Your task to perform on an android device: show emergency info Image 0: 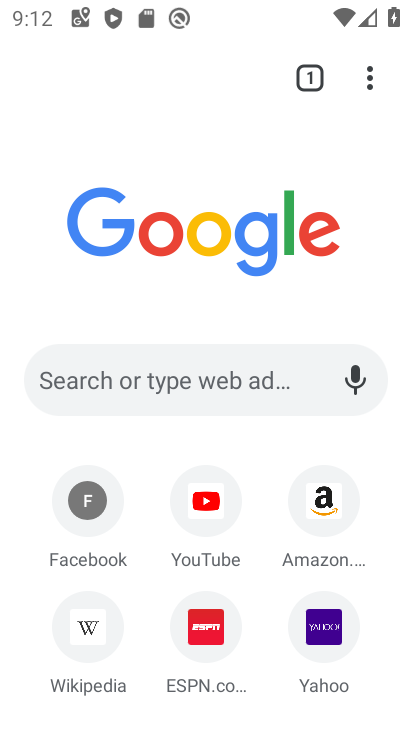
Step 0: press home button
Your task to perform on an android device: show emergency info Image 1: 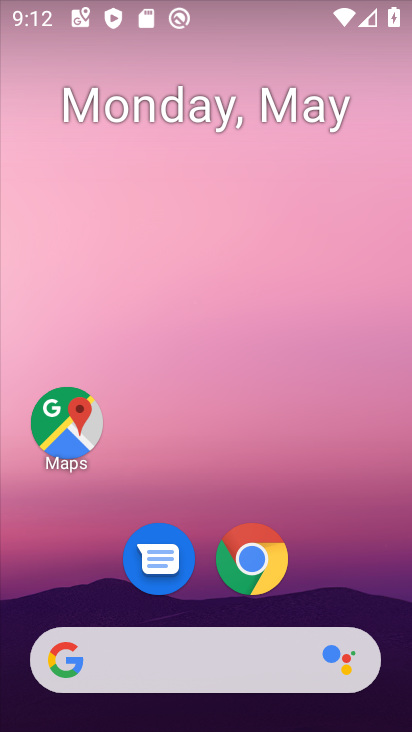
Step 1: drag from (338, 539) to (215, 99)
Your task to perform on an android device: show emergency info Image 2: 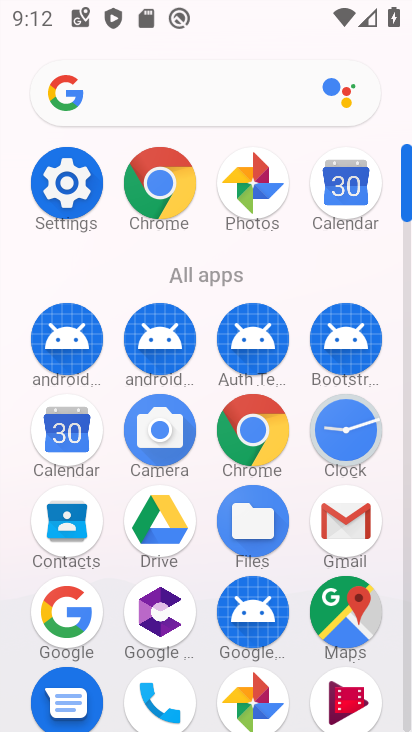
Step 2: click (65, 176)
Your task to perform on an android device: show emergency info Image 3: 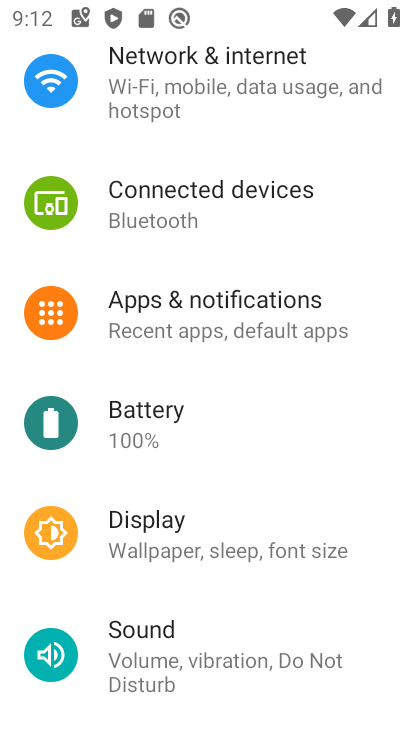
Step 3: drag from (227, 593) to (227, 101)
Your task to perform on an android device: show emergency info Image 4: 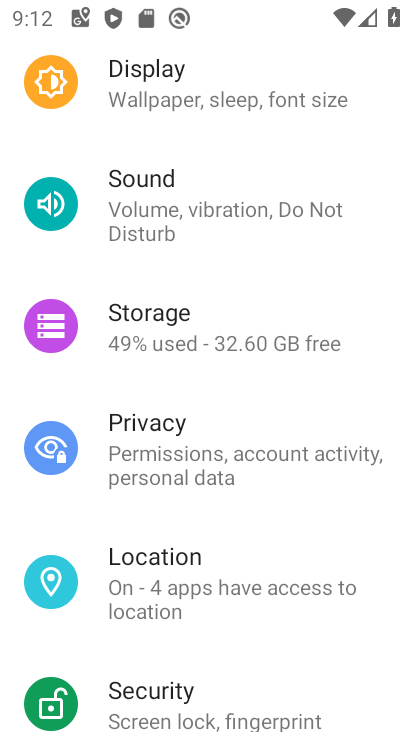
Step 4: drag from (211, 637) to (197, 217)
Your task to perform on an android device: show emergency info Image 5: 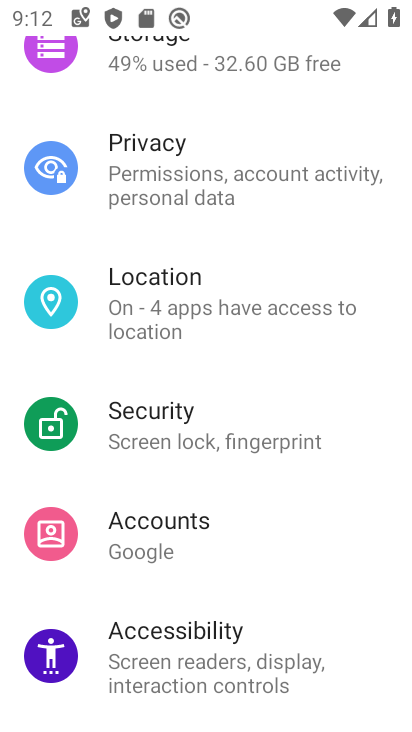
Step 5: drag from (185, 567) to (154, 168)
Your task to perform on an android device: show emergency info Image 6: 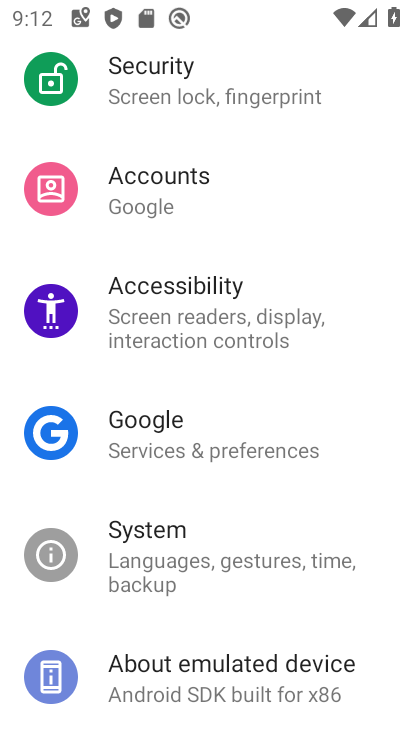
Step 6: click (207, 663)
Your task to perform on an android device: show emergency info Image 7: 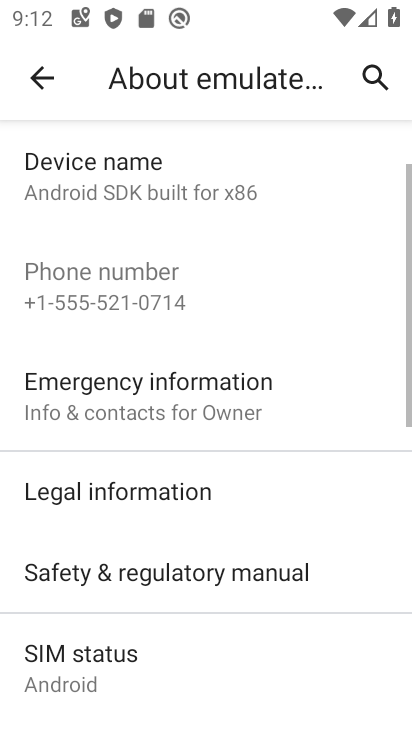
Step 7: click (181, 386)
Your task to perform on an android device: show emergency info Image 8: 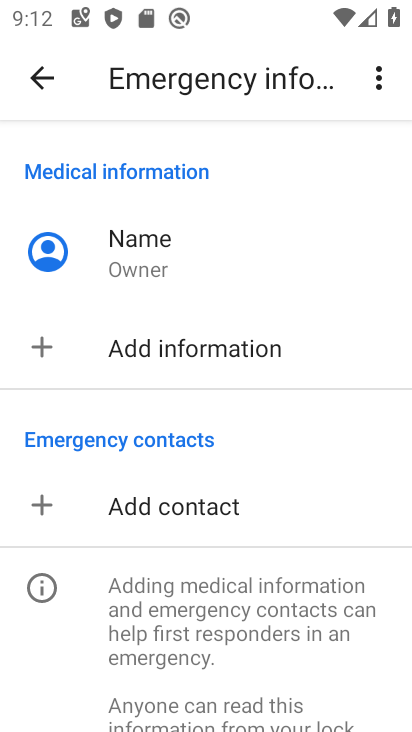
Step 8: task complete